Your task to perform on an android device: Open Chrome and go to settings Image 0: 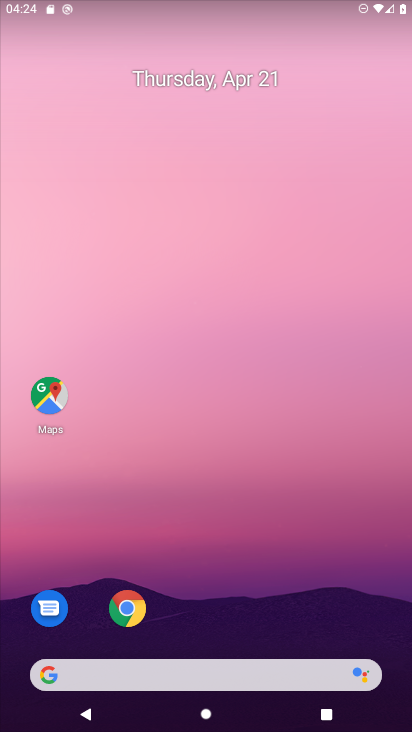
Step 0: drag from (236, 464) to (249, 170)
Your task to perform on an android device: Open Chrome and go to settings Image 1: 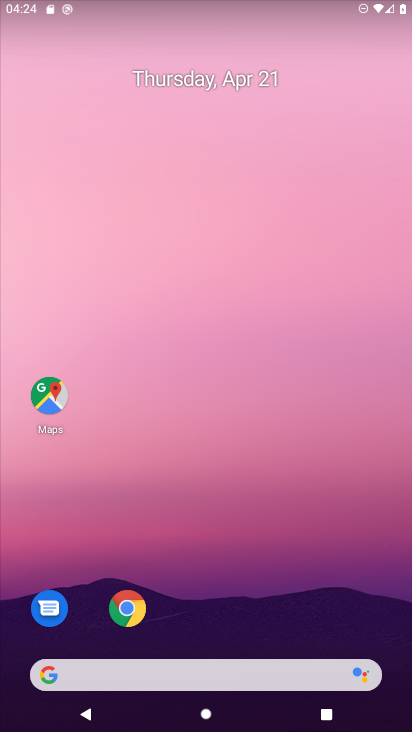
Step 1: drag from (261, 611) to (279, 117)
Your task to perform on an android device: Open Chrome and go to settings Image 2: 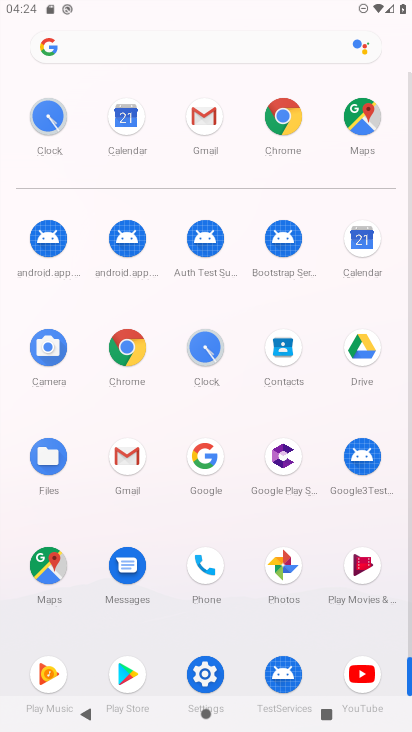
Step 2: click (282, 117)
Your task to perform on an android device: Open Chrome and go to settings Image 3: 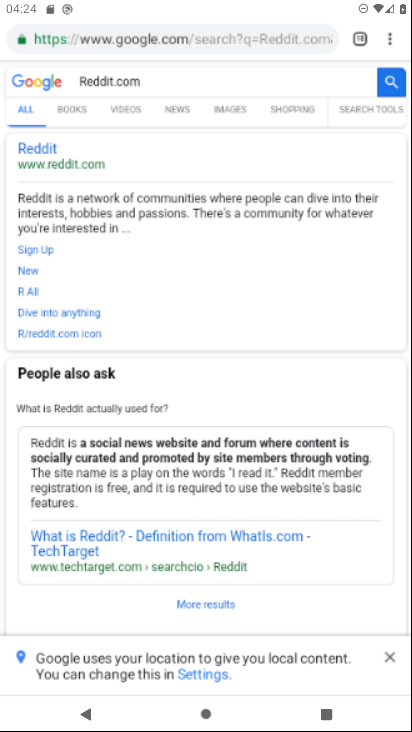
Step 3: click (282, 117)
Your task to perform on an android device: Open Chrome and go to settings Image 4: 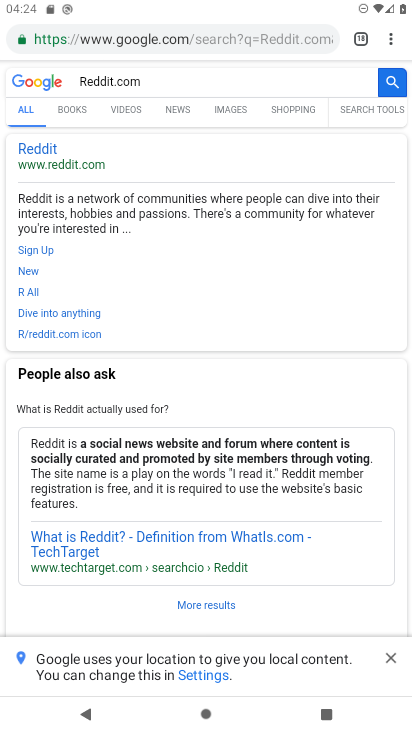
Step 4: click (387, 43)
Your task to perform on an android device: Open Chrome and go to settings Image 5: 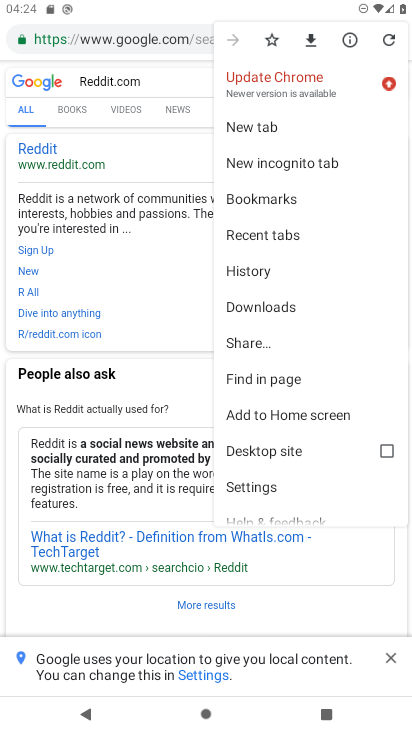
Step 5: click (266, 489)
Your task to perform on an android device: Open Chrome and go to settings Image 6: 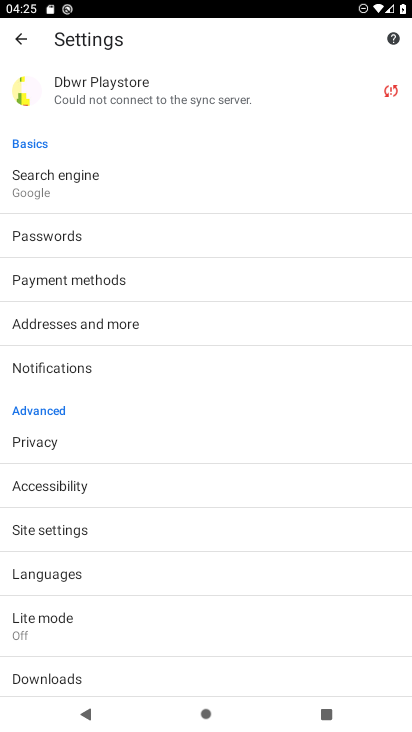
Step 6: task complete